Your task to perform on an android device: Open Reddit.com Image 0: 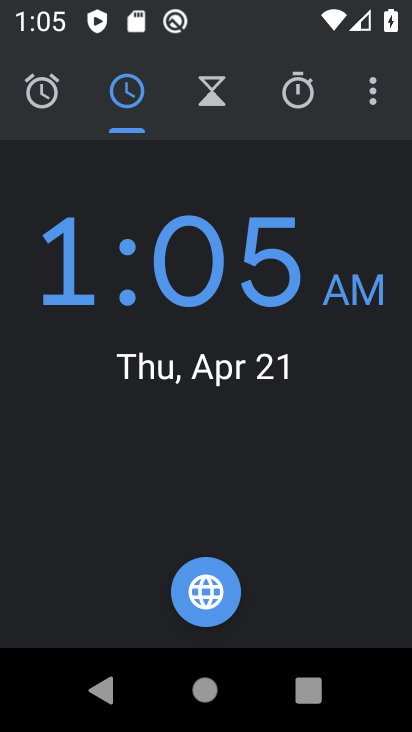
Step 0: press home button
Your task to perform on an android device: Open Reddit.com Image 1: 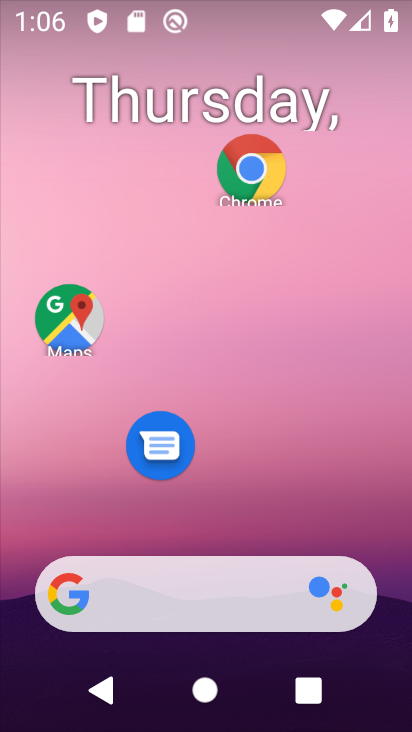
Step 1: click (183, 285)
Your task to perform on an android device: Open Reddit.com Image 2: 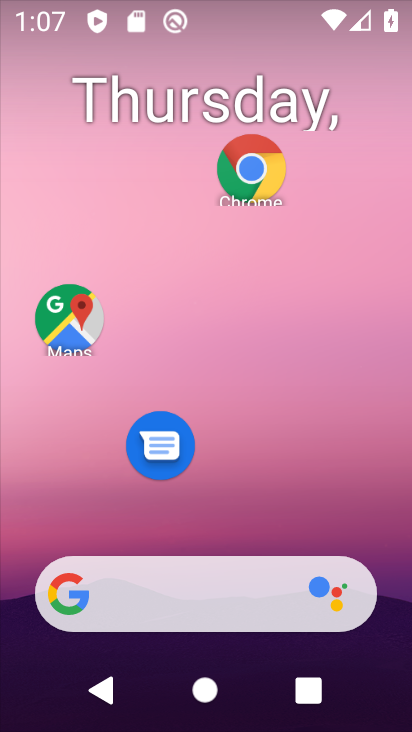
Step 2: drag from (285, 635) to (275, 144)
Your task to perform on an android device: Open Reddit.com Image 3: 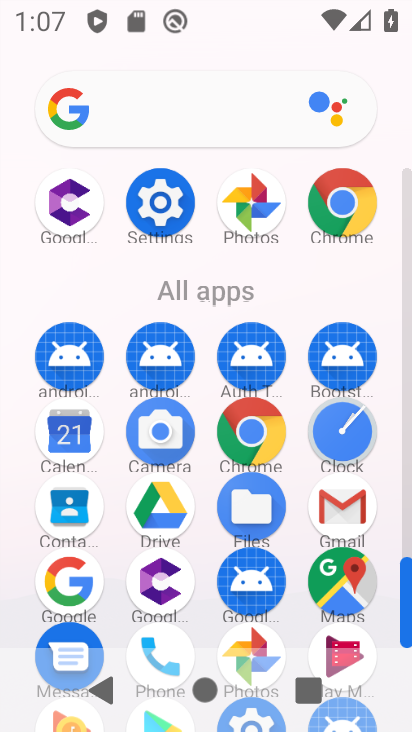
Step 3: click (256, 415)
Your task to perform on an android device: Open Reddit.com Image 4: 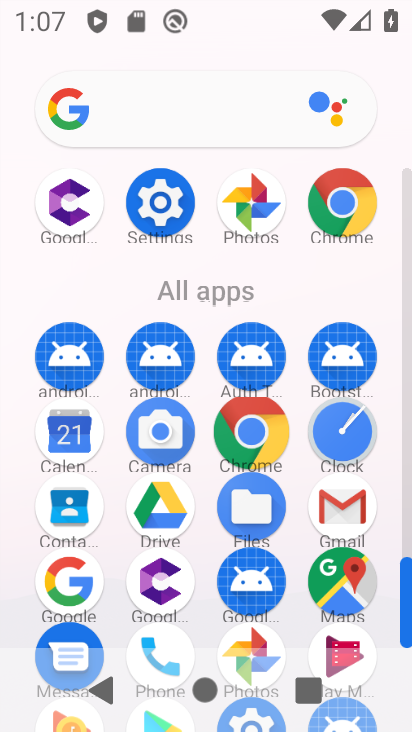
Step 4: click (254, 421)
Your task to perform on an android device: Open Reddit.com Image 5: 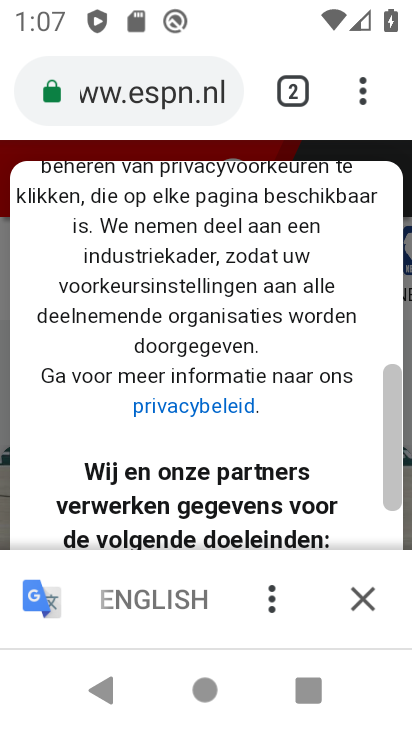
Step 5: click (191, 93)
Your task to perform on an android device: Open Reddit.com Image 6: 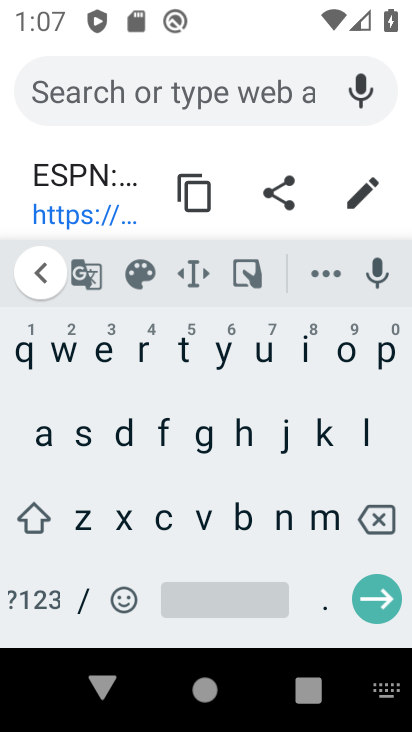
Step 6: click (140, 353)
Your task to perform on an android device: Open Reddit.com Image 7: 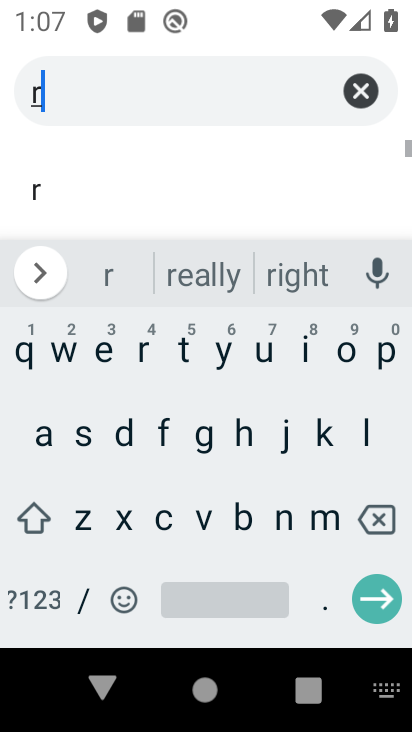
Step 7: click (105, 354)
Your task to perform on an android device: Open Reddit.com Image 8: 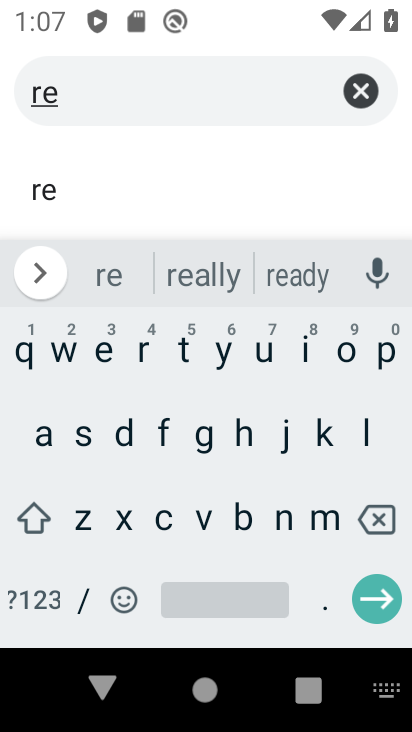
Step 8: click (127, 456)
Your task to perform on an android device: Open Reddit.com Image 9: 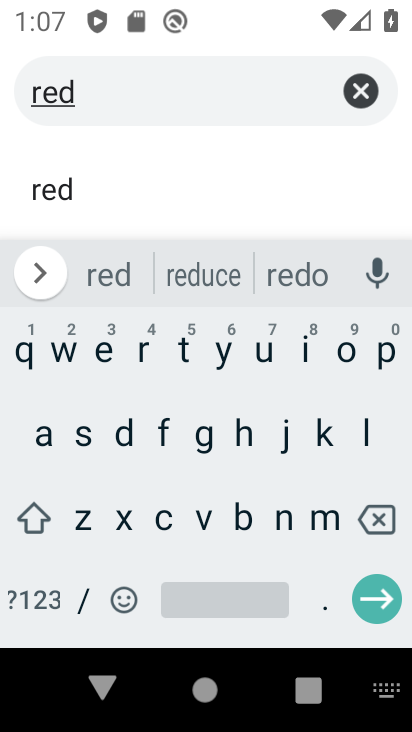
Step 9: click (128, 454)
Your task to perform on an android device: Open Reddit.com Image 10: 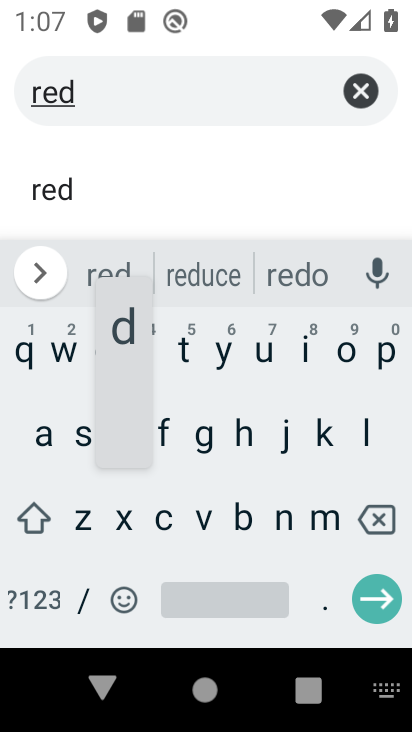
Step 10: click (134, 436)
Your task to perform on an android device: Open Reddit.com Image 11: 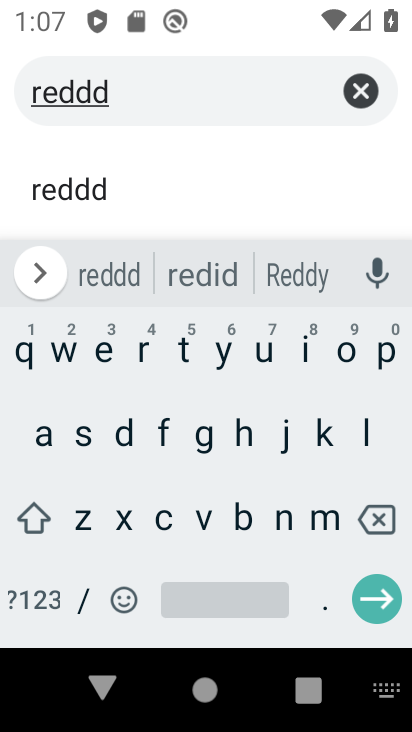
Step 11: click (369, 514)
Your task to perform on an android device: Open Reddit.com Image 12: 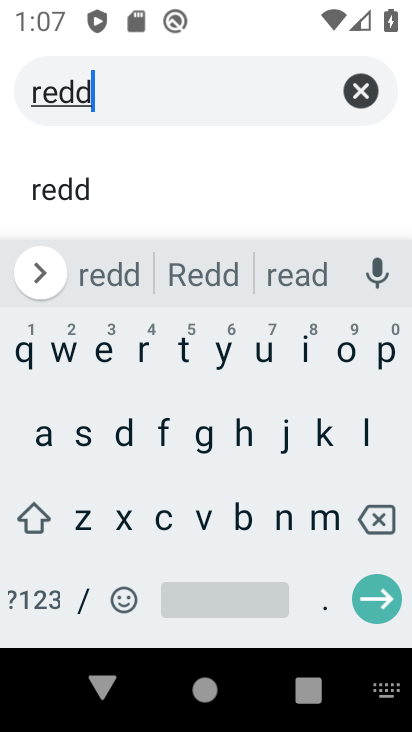
Step 12: click (306, 353)
Your task to perform on an android device: Open Reddit.com Image 13: 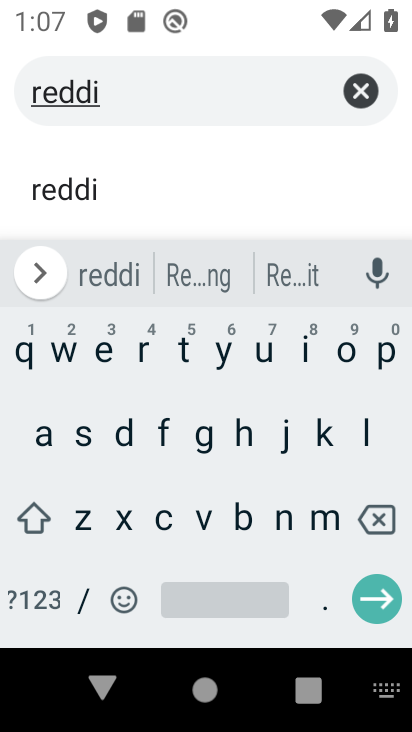
Step 13: click (187, 353)
Your task to perform on an android device: Open Reddit.com Image 14: 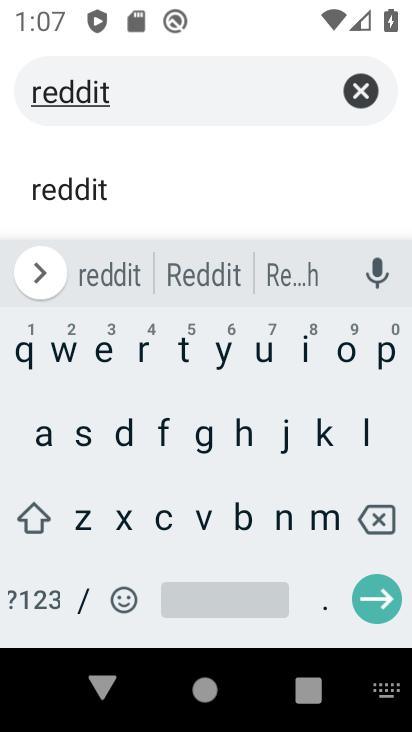
Step 14: click (372, 597)
Your task to perform on an android device: Open Reddit.com Image 15: 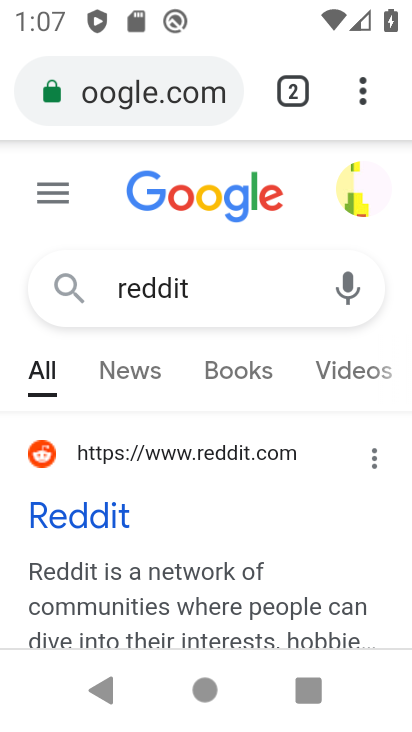
Step 15: click (90, 524)
Your task to perform on an android device: Open Reddit.com Image 16: 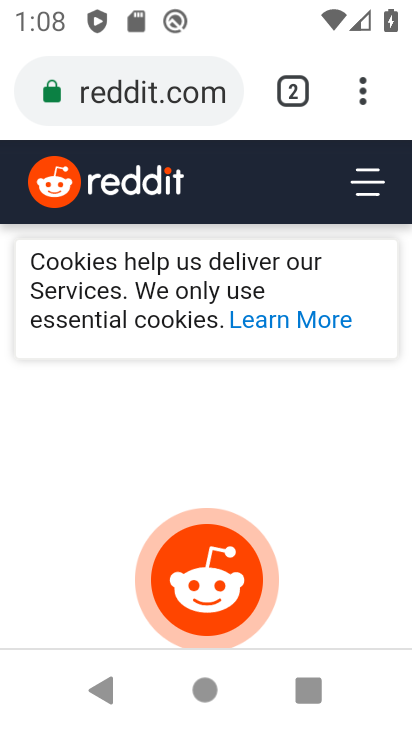
Step 16: task complete